Your task to perform on an android device: Open Google Chrome and click the shortcut for Amazon.com Image 0: 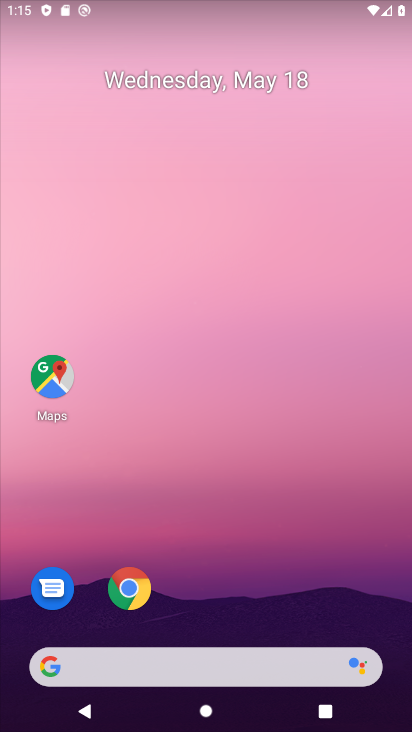
Step 0: drag from (315, 614) to (320, 76)
Your task to perform on an android device: Open Google Chrome and click the shortcut for Amazon.com Image 1: 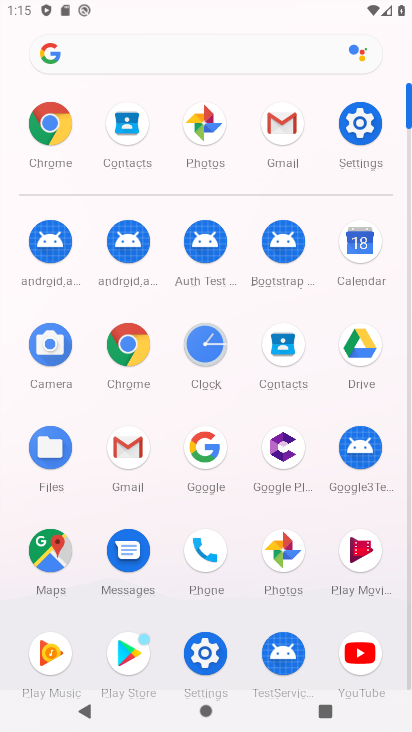
Step 1: click (120, 341)
Your task to perform on an android device: Open Google Chrome and click the shortcut for Amazon.com Image 2: 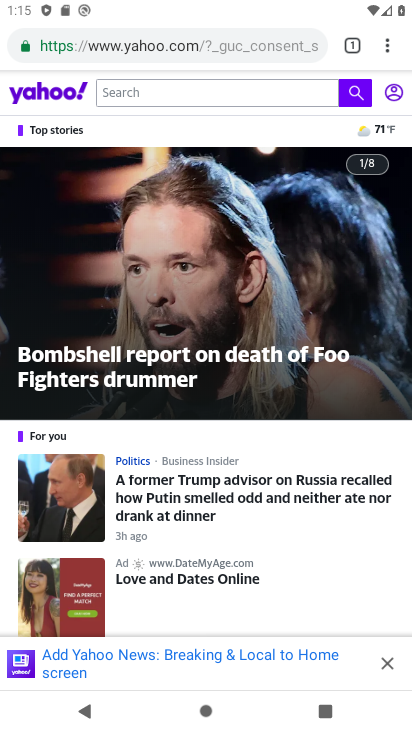
Step 2: task complete